Your task to perform on an android device: change timer sound Image 0: 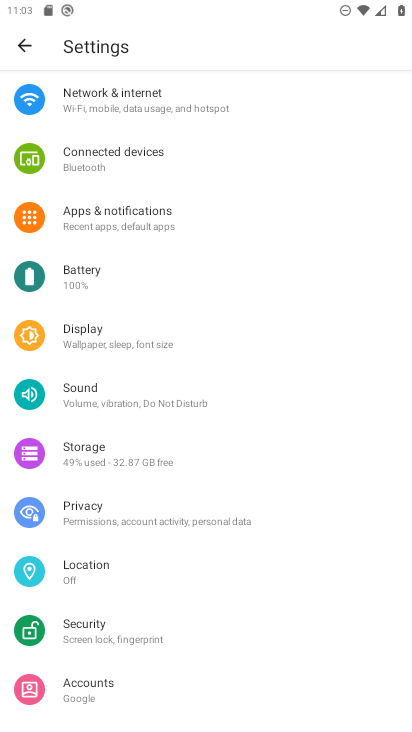
Step 0: press home button
Your task to perform on an android device: change timer sound Image 1: 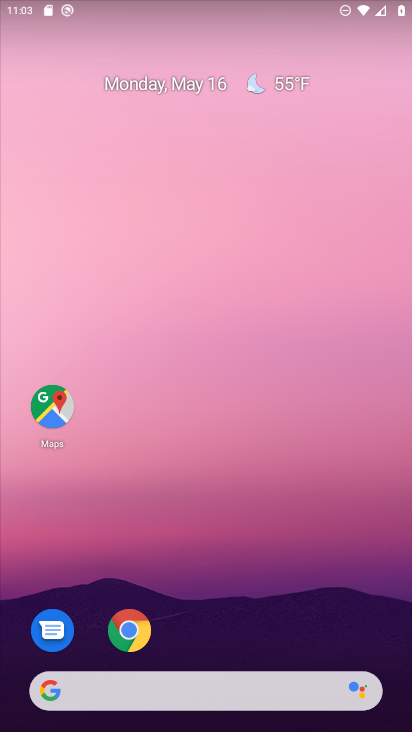
Step 1: drag from (196, 642) to (214, 274)
Your task to perform on an android device: change timer sound Image 2: 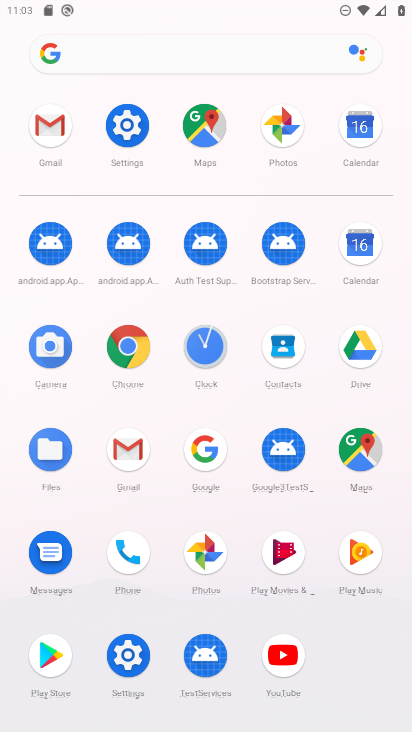
Step 2: click (215, 335)
Your task to perform on an android device: change timer sound Image 3: 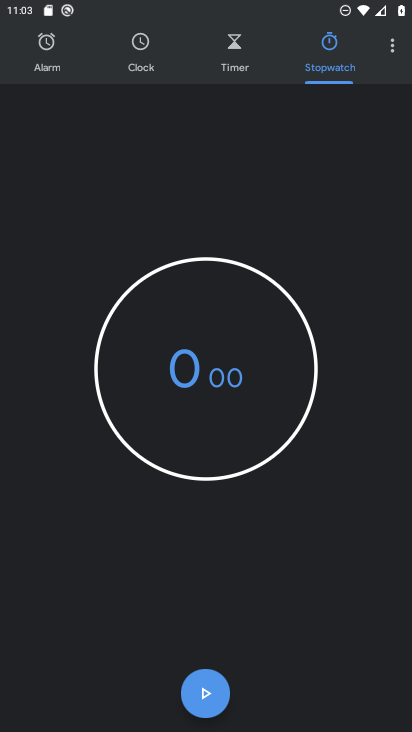
Step 3: click (395, 41)
Your task to perform on an android device: change timer sound Image 4: 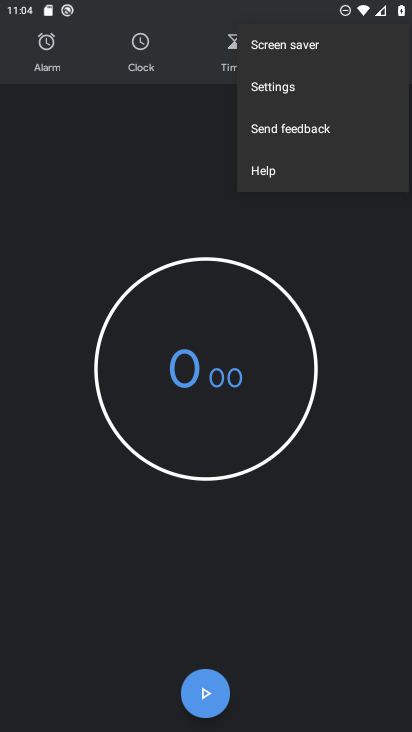
Step 4: click (315, 83)
Your task to perform on an android device: change timer sound Image 5: 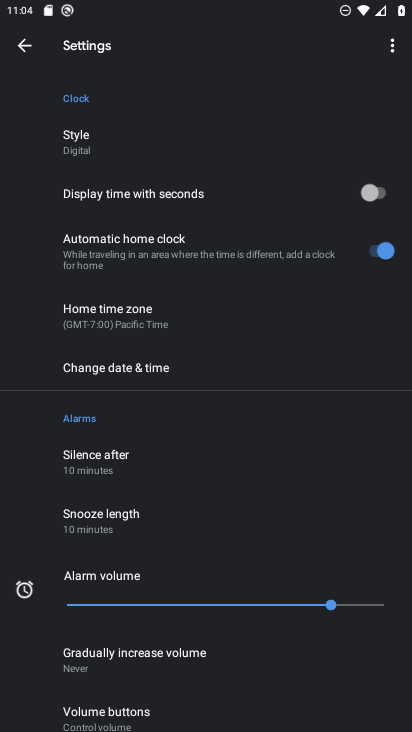
Step 5: drag from (176, 554) to (225, 307)
Your task to perform on an android device: change timer sound Image 6: 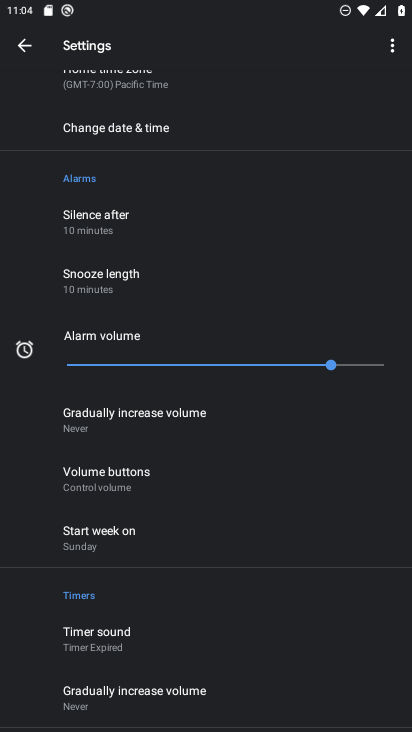
Step 6: click (132, 623)
Your task to perform on an android device: change timer sound Image 7: 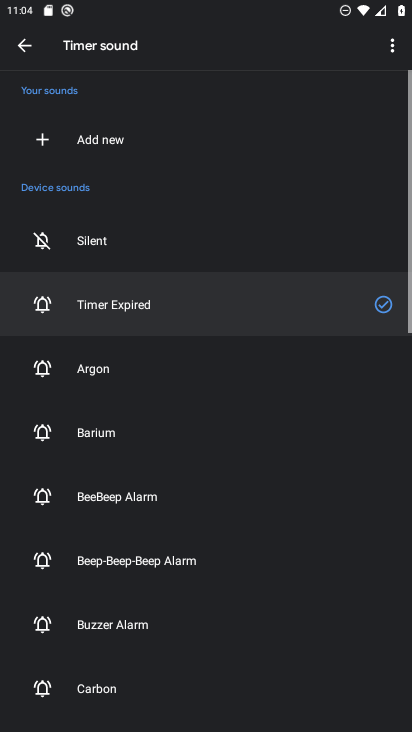
Step 7: click (118, 440)
Your task to perform on an android device: change timer sound Image 8: 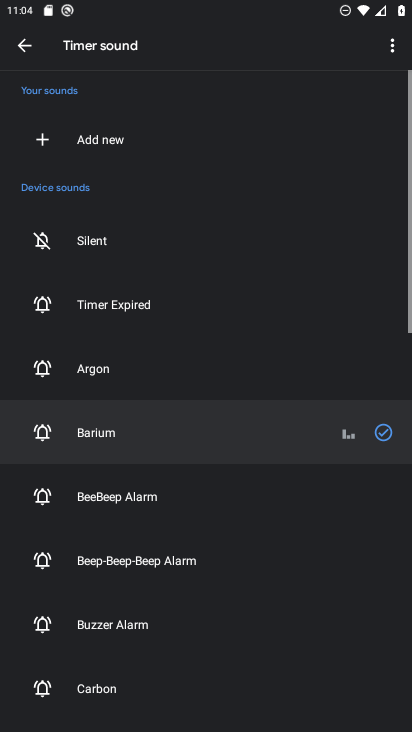
Step 8: task complete